Your task to perform on an android device: set the stopwatch Image 0: 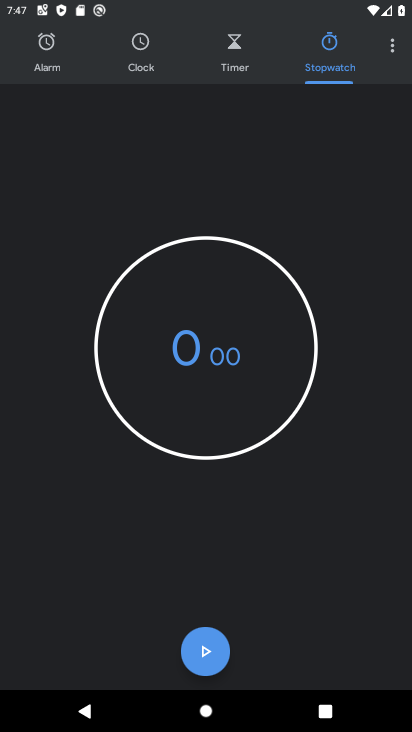
Step 0: press home button
Your task to perform on an android device: set the stopwatch Image 1: 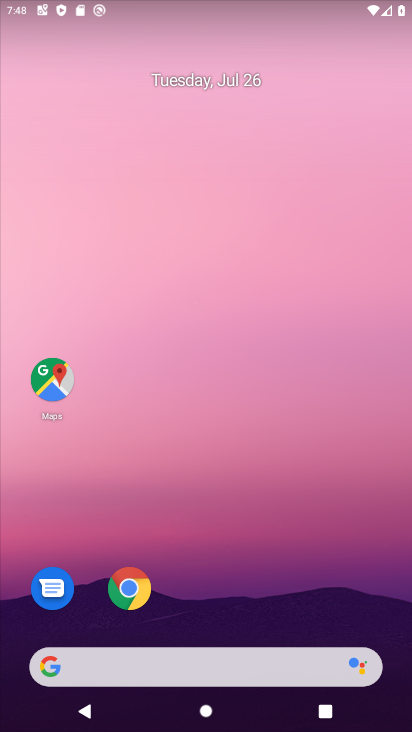
Step 1: drag from (327, 526) to (338, 239)
Your task to perform on an android device: set the stopwatch Image 2: 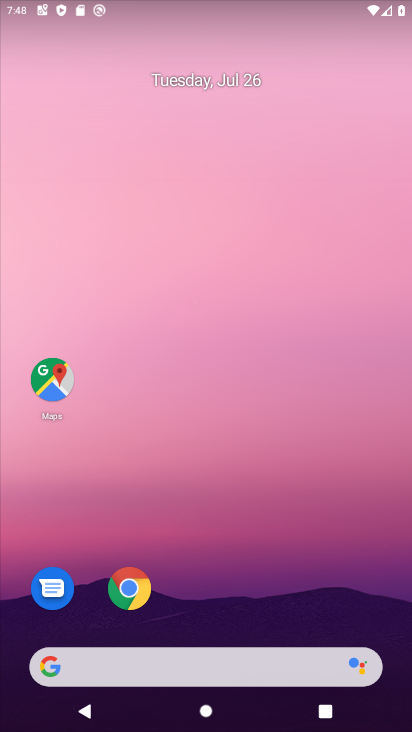
Step 2: drag from (322, 370) to (324, 4)
Your task to perform on an android device: set the stopwatch Image 3: 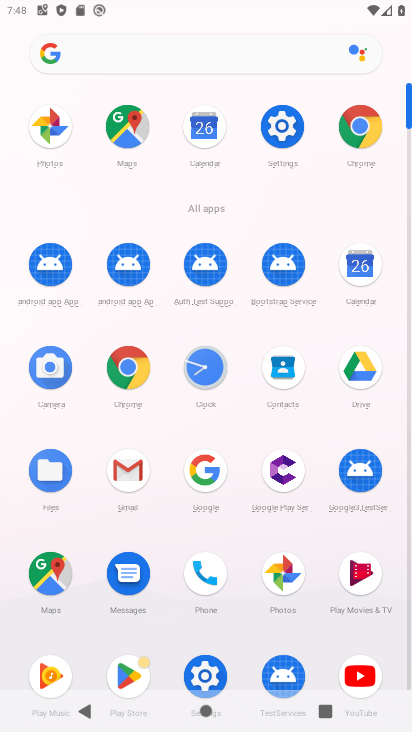
Step 3: click (274, 150)
Your task to perform on an android device: set the stopwatch Image 4: 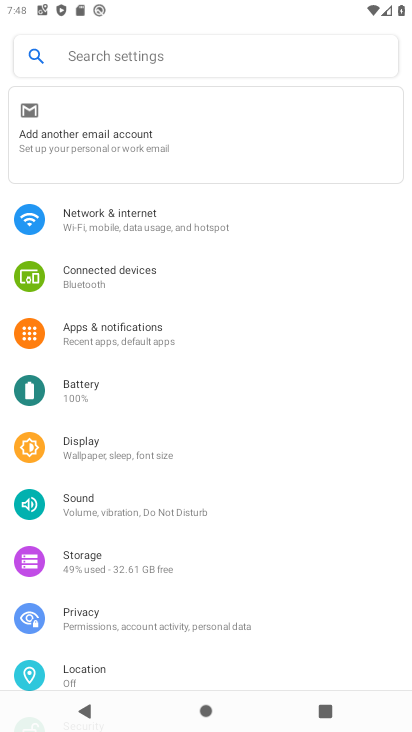
Step 4: press home button
Your task to perform on an android device: set the stopwatch Image 5: 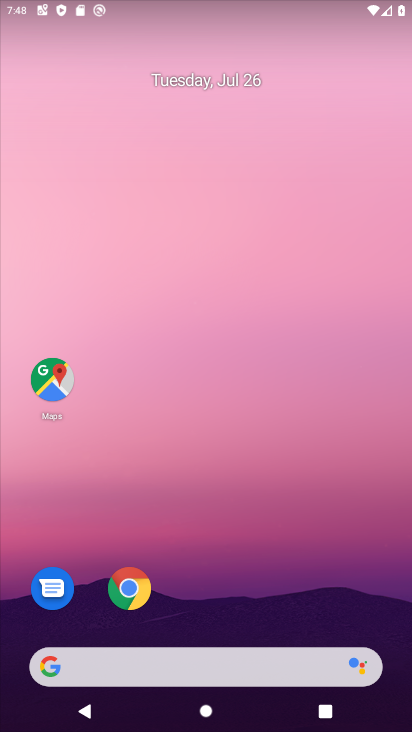
Step 5: drag from (332, 545) to (348, 232)
Your task to perform on an android device: set the stopwatch Image 6: 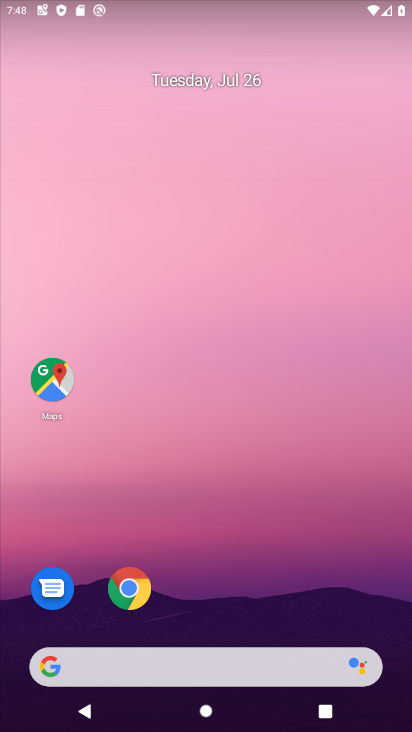
Step 6: drag from (303, 523) to (324, 190)
Your task to perform on an android device: set the stopwatch Image 7: 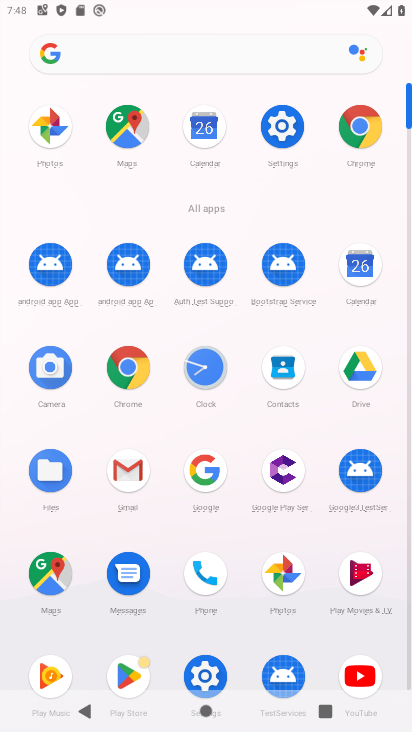
Step 7: click (209, 372)
Your task to perform on an android device: set the stopwatch Image 8: 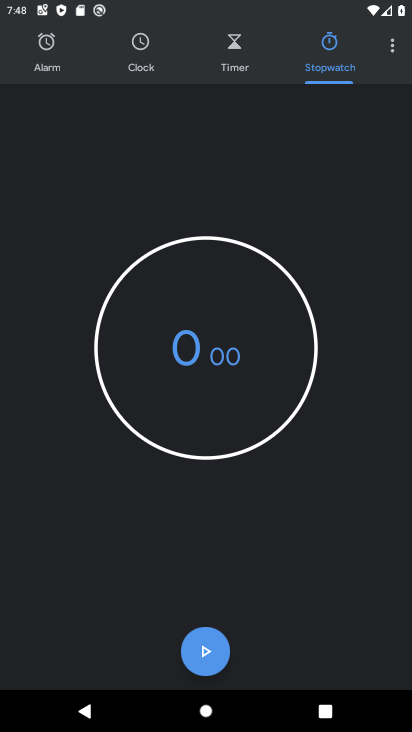
Step 8: task complete